Your task to perform on an android device: Open sound settings Image 0: 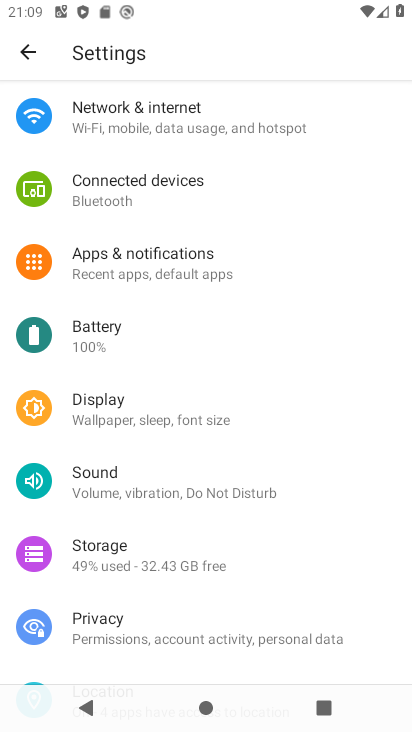
Step 0: click (193, 479)
Your task to perform on an android device: Open sound settings Image 1: 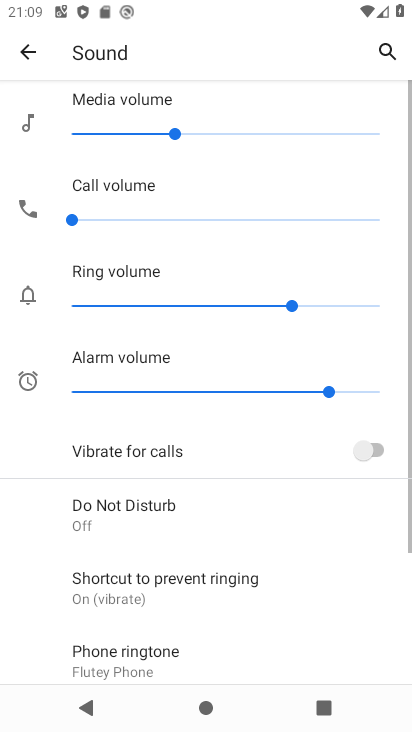
Step 1: task complete